Your task to perform on an android device: manage bookmarks in the chrome app Image 0: 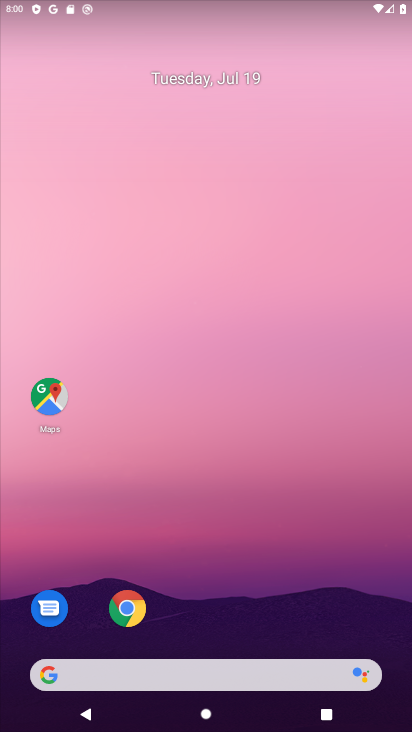
Step 0: click (124, 602)
Your task to perform on an android device: manage bookmarks in the chrome app Image 1: 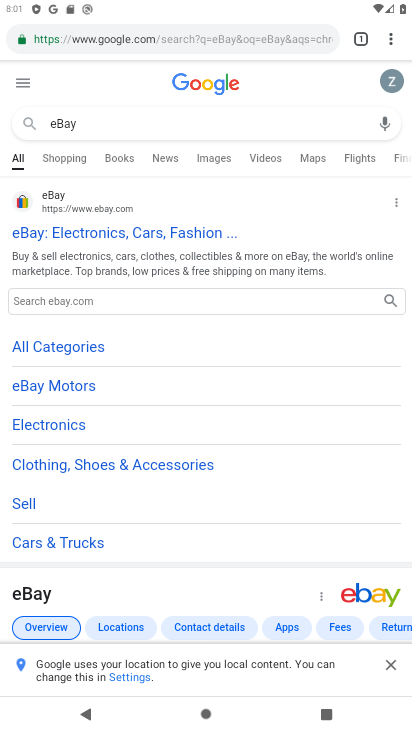
Step 1: click (386, 33)
Your task to perform on an android device: manage bookmarks in the chrome app Image 2: 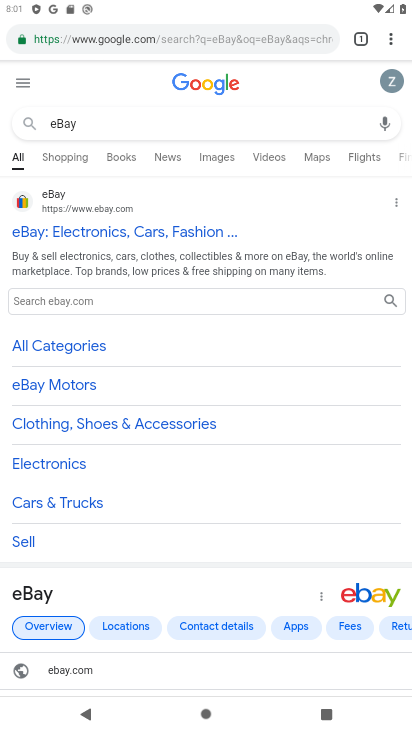
Step 2: click (390, 41)
Your task to perform on an android device: manage bookmarks in the chrome app Image 3: 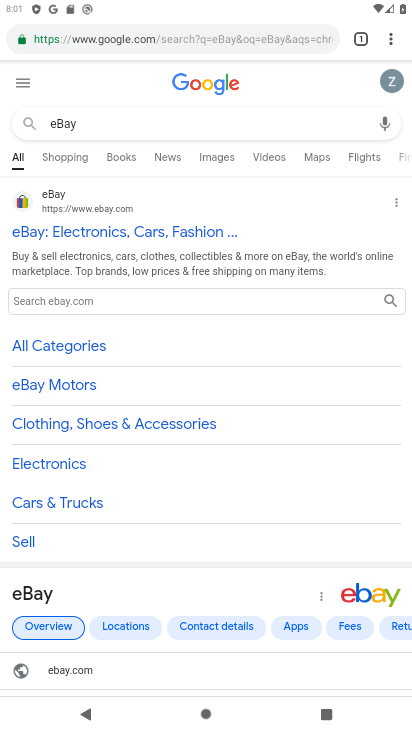
Step 3: click (390, 41)
Your task to perform on an android device: manage bookmarks in the chrome app Image 4: 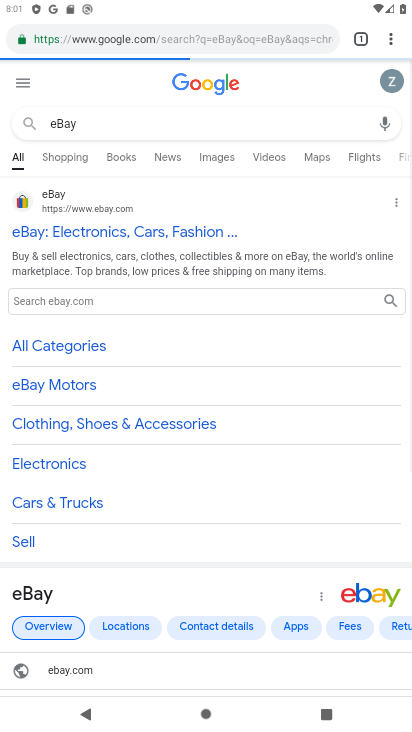
Step 4: click (390, 41)
Your task to perform on an android device: manage bookmarks in the chrome app Image 5: 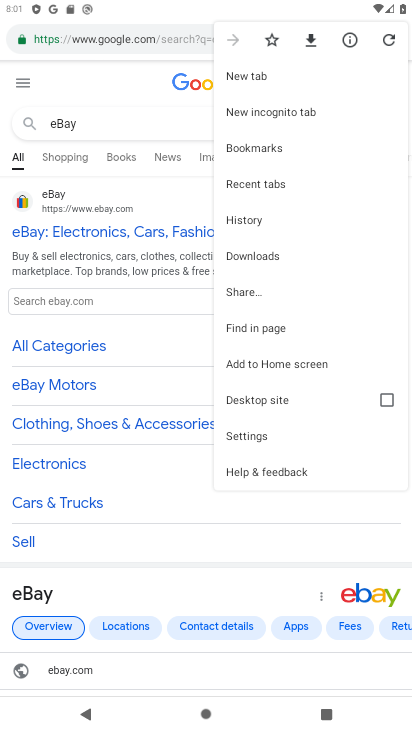
Step 5: click (258, 141)
Your task to perform on an android device: manage bookmarks in the chrome app Image 6: 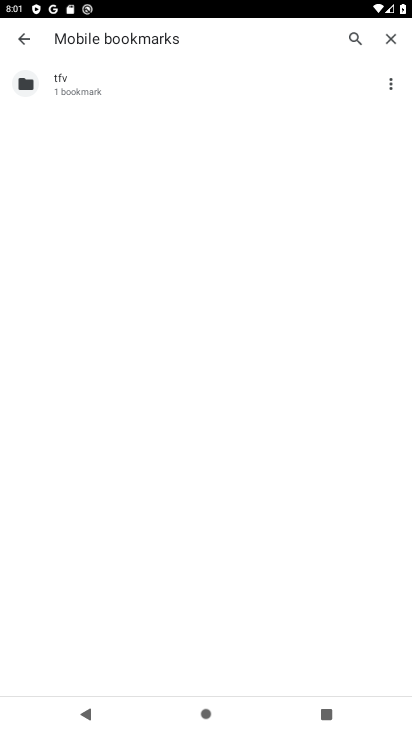
Step 6: click (114, 88)
Your task to perform on an android device: manage bookmarks in the chrome app Image 7: 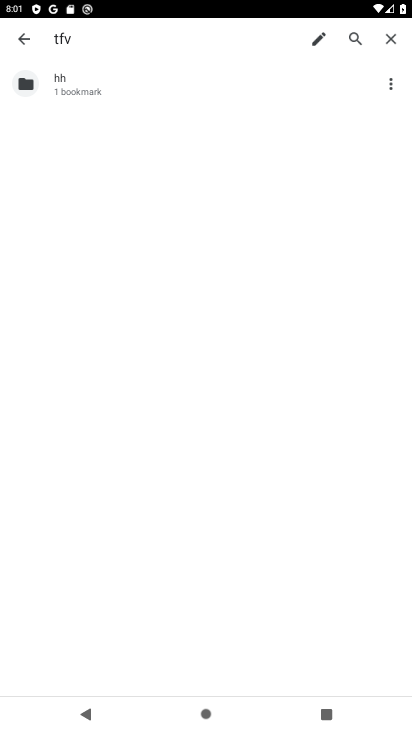
Step 7: click (66, 89)
Your task to perform on an android device: manage bookmarks in the chrome app Image 8: 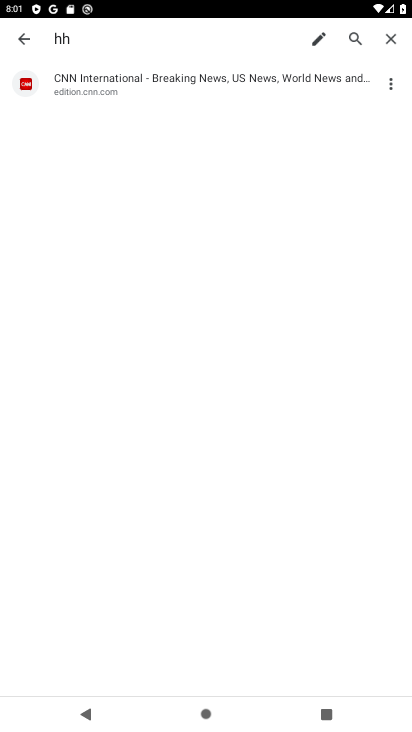
Step 8: click (391, 82)
Your task to perform on an android device: manage bookmarks in the chrome app Image 9: 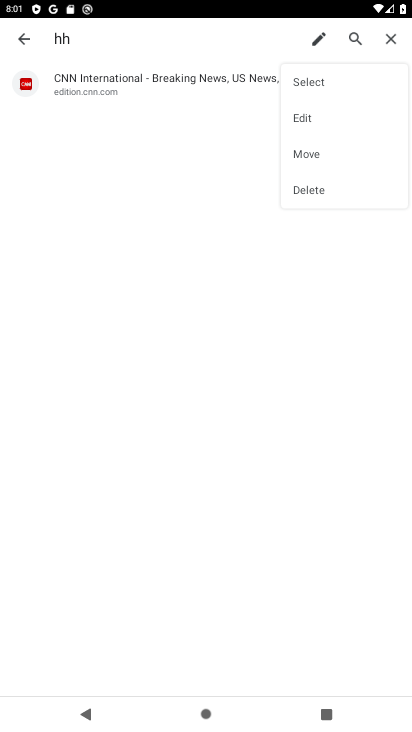
Step 9: click (323, 184)
Your task to perform on an android device: manage bookmarks in the chrome app Image 10: 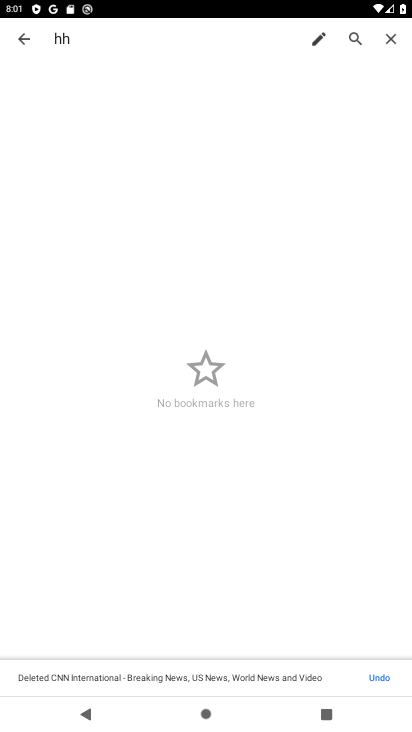
Step 10: task complete